Your task to perform on an android device: clear all cookies in the chrome app Image 0: 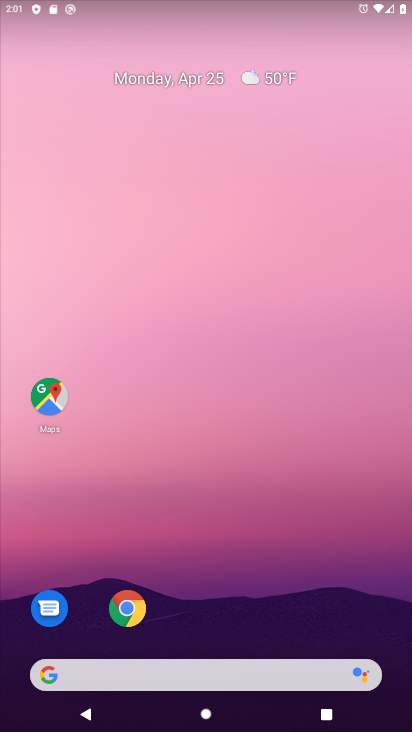
Step 0: click (119, 607)
Your task to perform on an android device: clear all cookies in the chrome app Image 1: 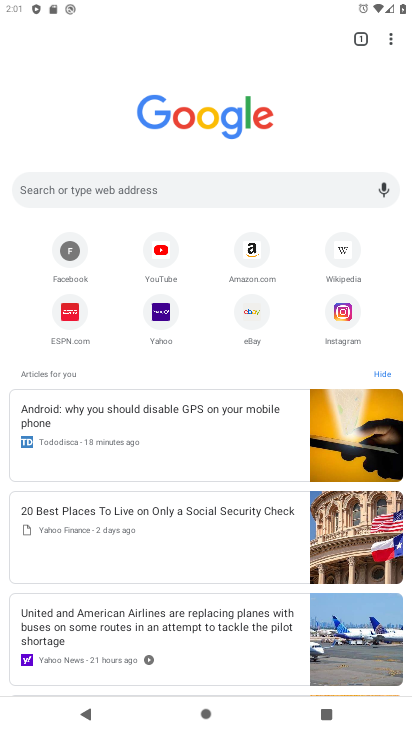
Step 1: task complete